Your task to perform on an android device: Clear all items from cart on costco. Search for "amazon basics triple a" on costco, select the first entry, and add it to the cart. Image 0: 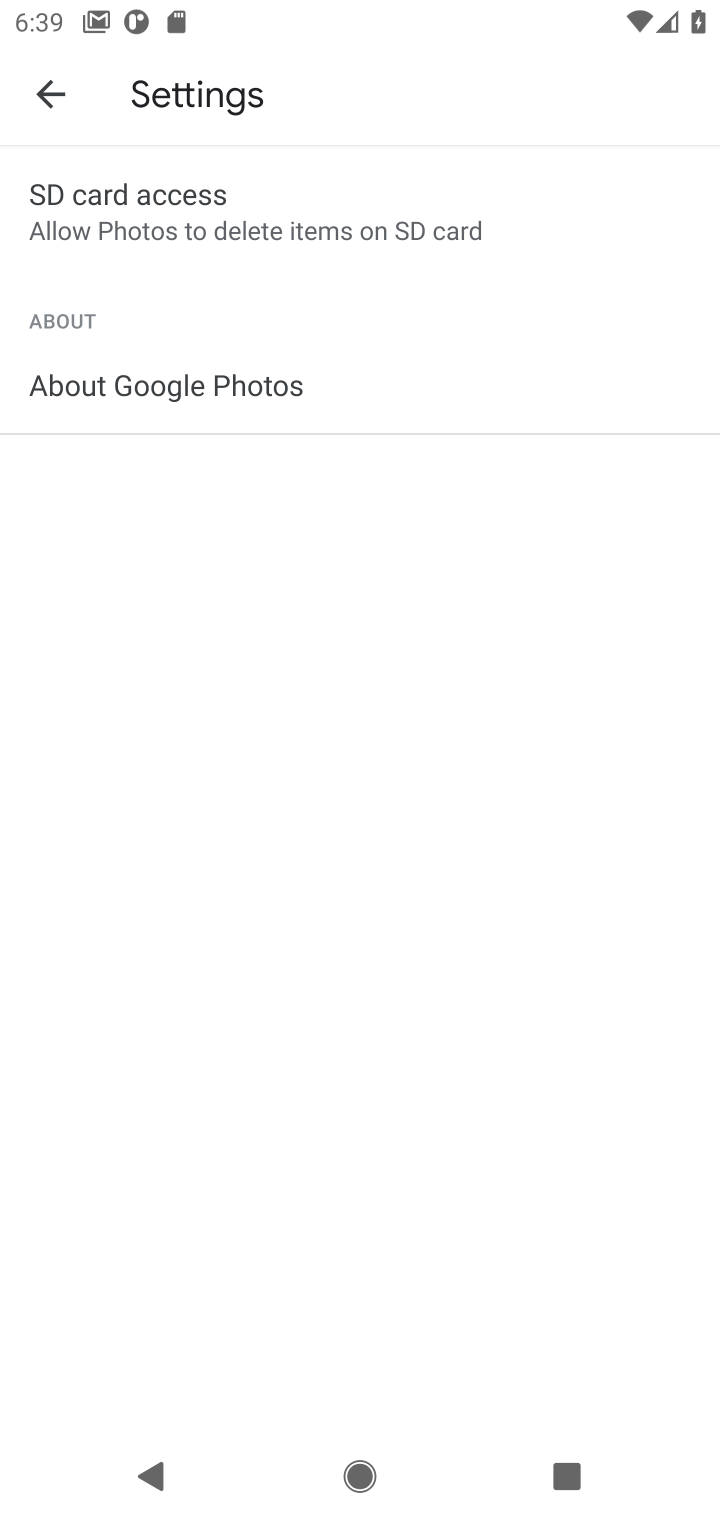
Step 0: press home button
Your task to perform on an android device: Clear all items from cart on costco. Search for "amazon basics triple a" on costco, select the first entry, and add it to the cart. Image 1: 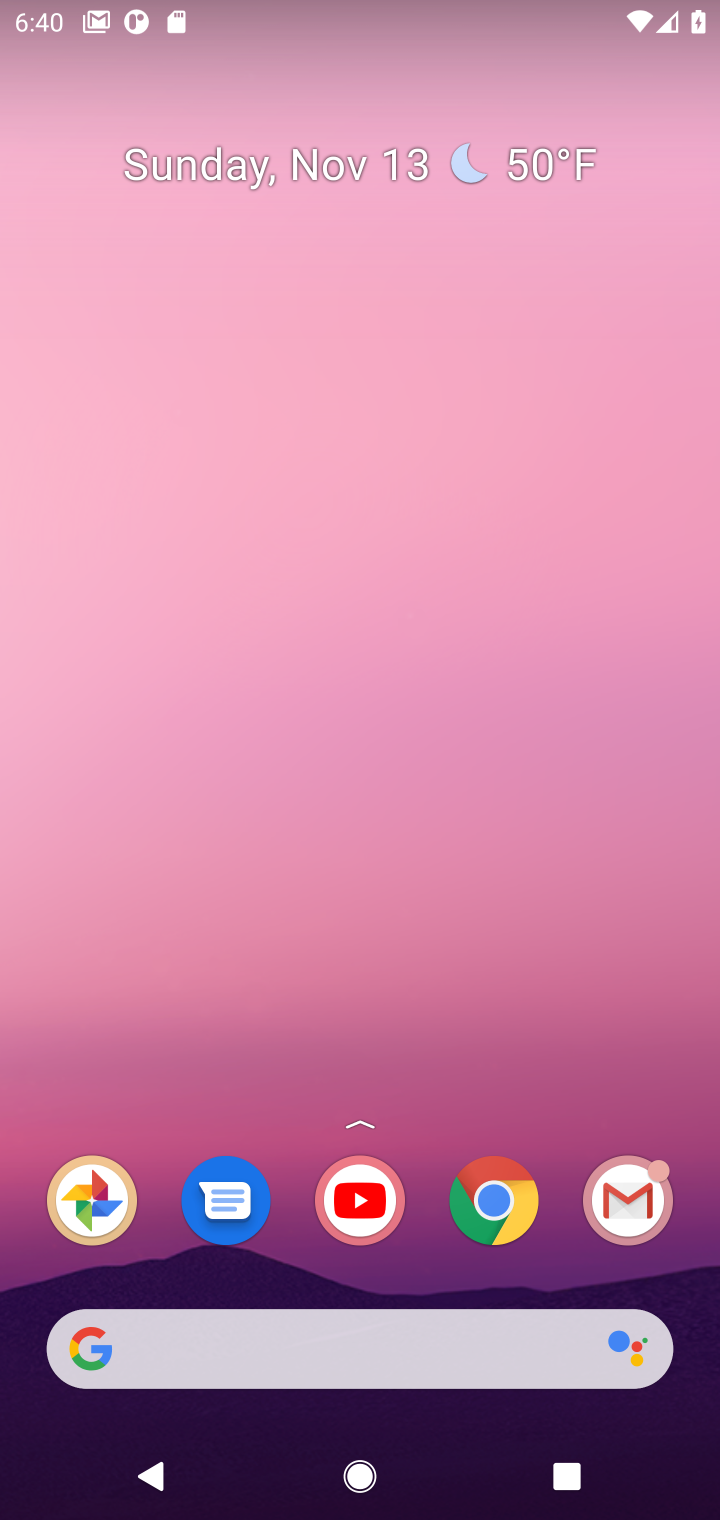
Step 1: click (463, 1220)
Your task to perform on an android device: Clear all items from cart on costco. Search for "amazon basics triple a" on costco, select the first entry, and add it to the cart. Image 2: 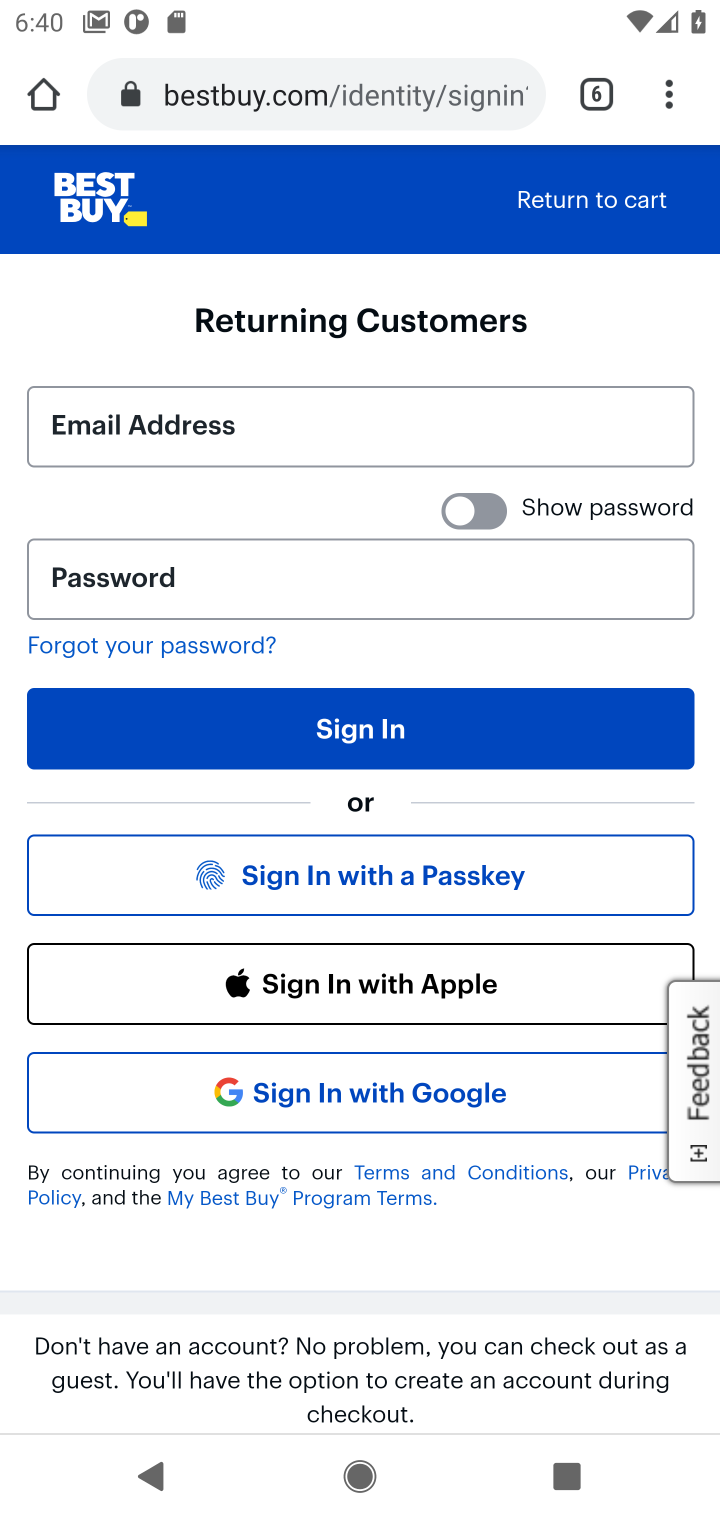
Step 2: click (587, 90)
Your task to perform on an android device: Clear all items from cart on costco. Search for "amazon basics triple a" on costco, select the first entry, and add it to the cart. Image 3: 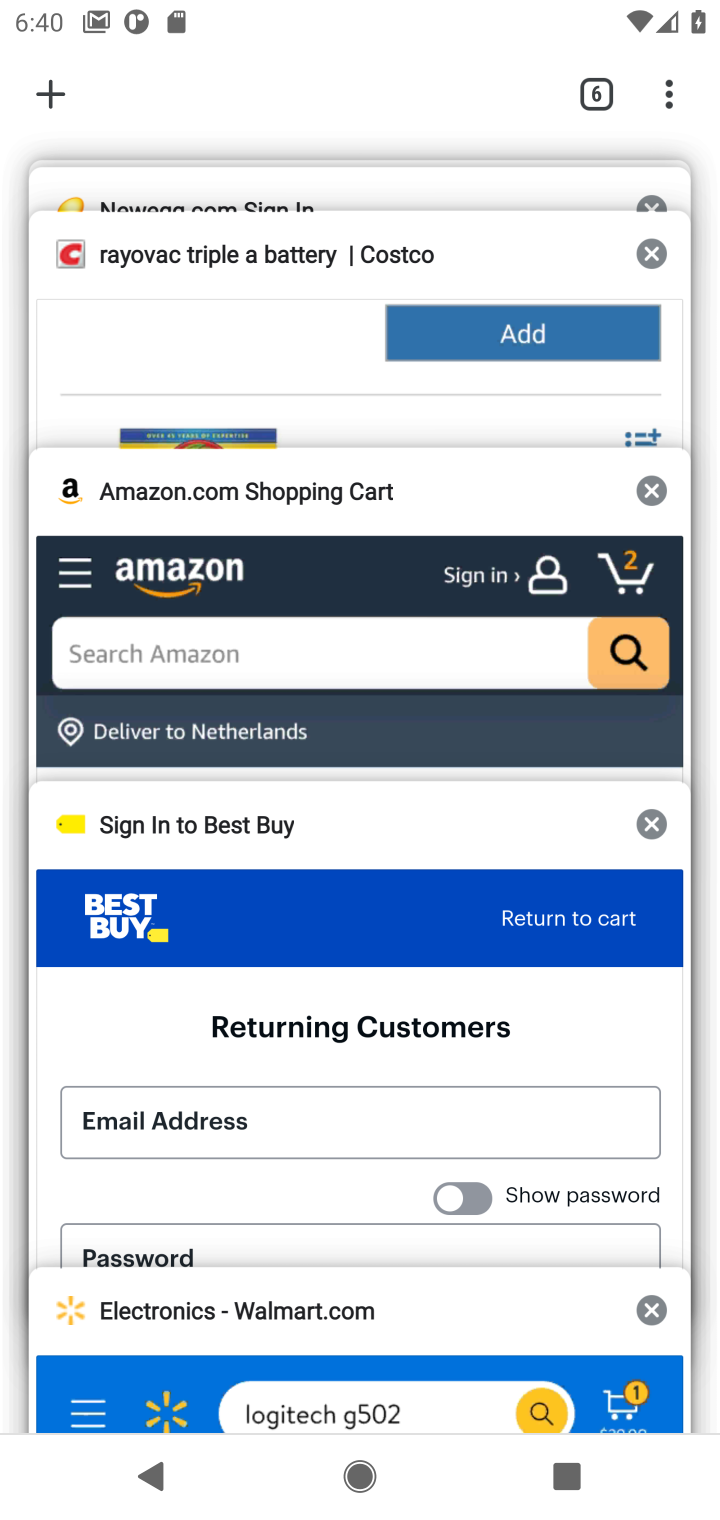
Step 3: click (301, 560)
Your task to perform on an android device: Clear all items from cart on costco. Search for "amazon basics triple a" on costco, select the first entry, and add it to the cart. Image 4: 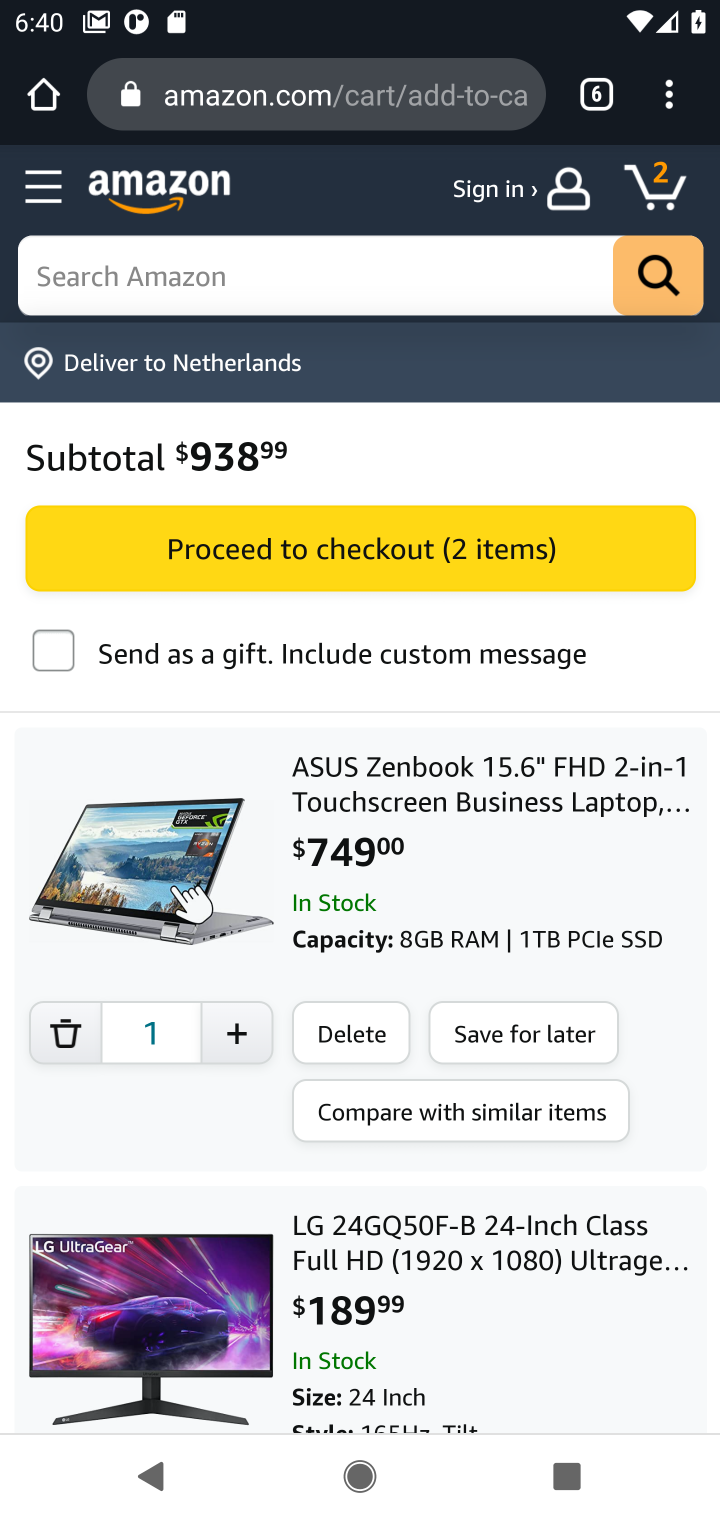
Step 4: click (602, 97)
Your task to perform on an android device: Clear all items from cart on costco. Search for "amazon basics triple a" on costco, select the first entry, and add it to the cart. Image 5: 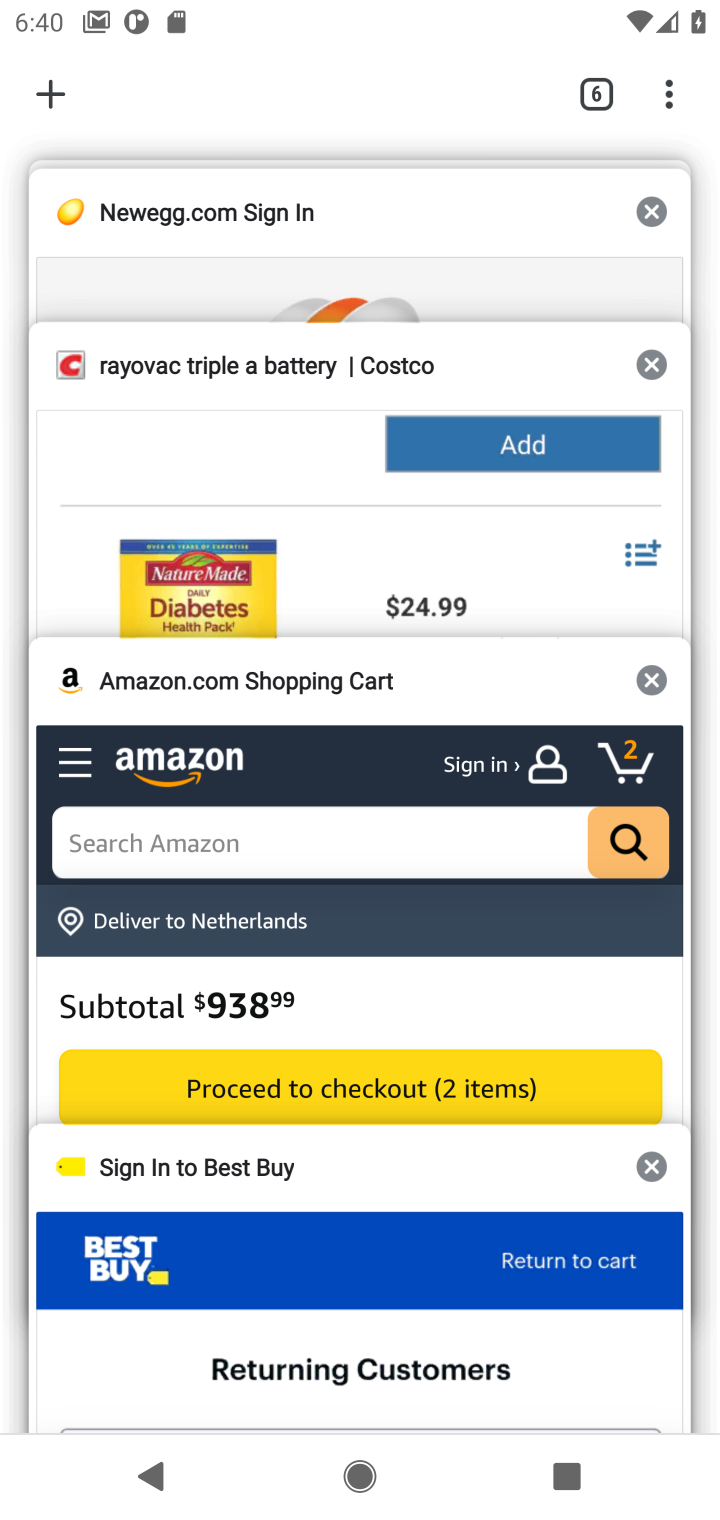
Step 5: click (296, 466)
Your task to perform on an android device: Clear all items from cart on costco. Search for "amazon basics triple a" on costco, select the first entry, and add it to the cart. Image 6: 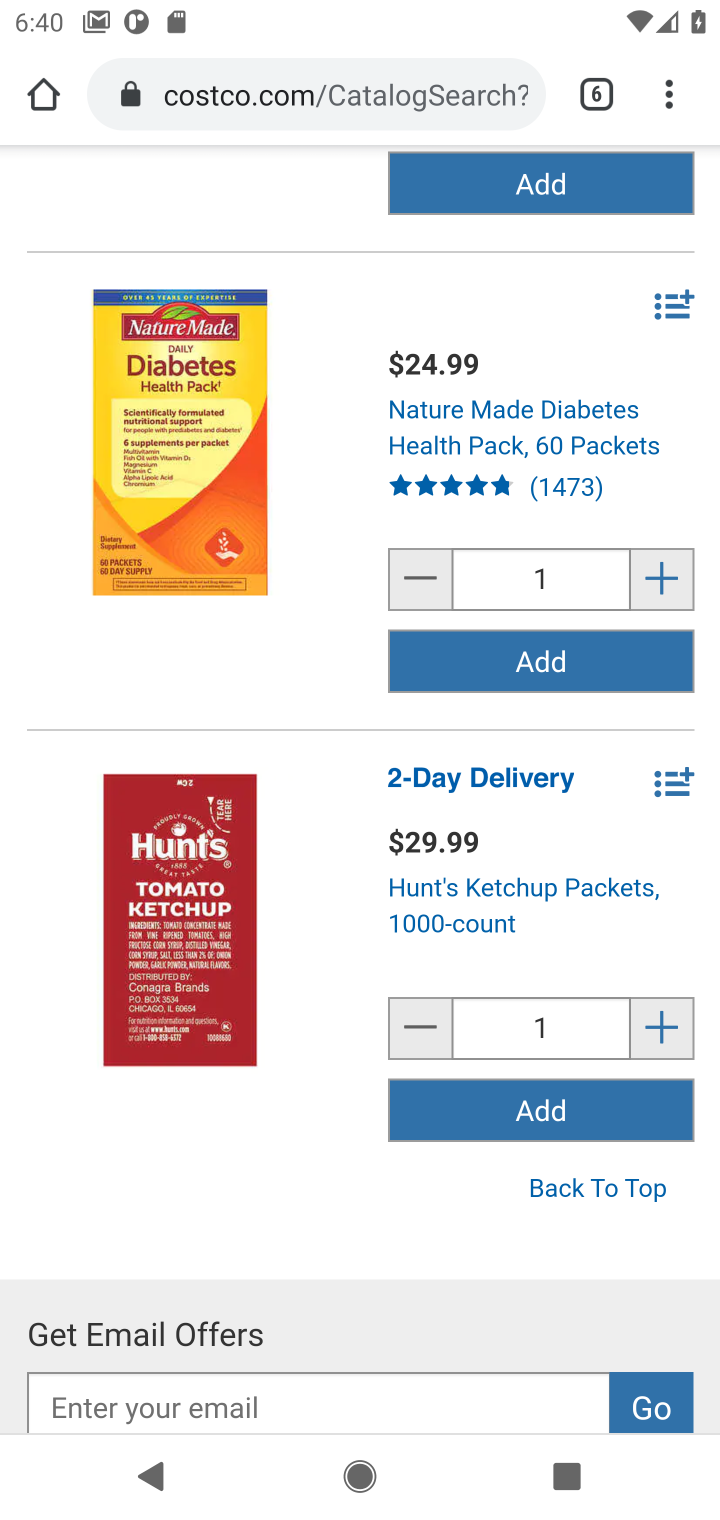
Step 6: drag from (344, 253) to (336, 903)
Your task to perform on an android device: Clear all items from cart on costco. Search for "amazon basics triple a" on costco, select the first entry, and add it to the cart. Image 7: 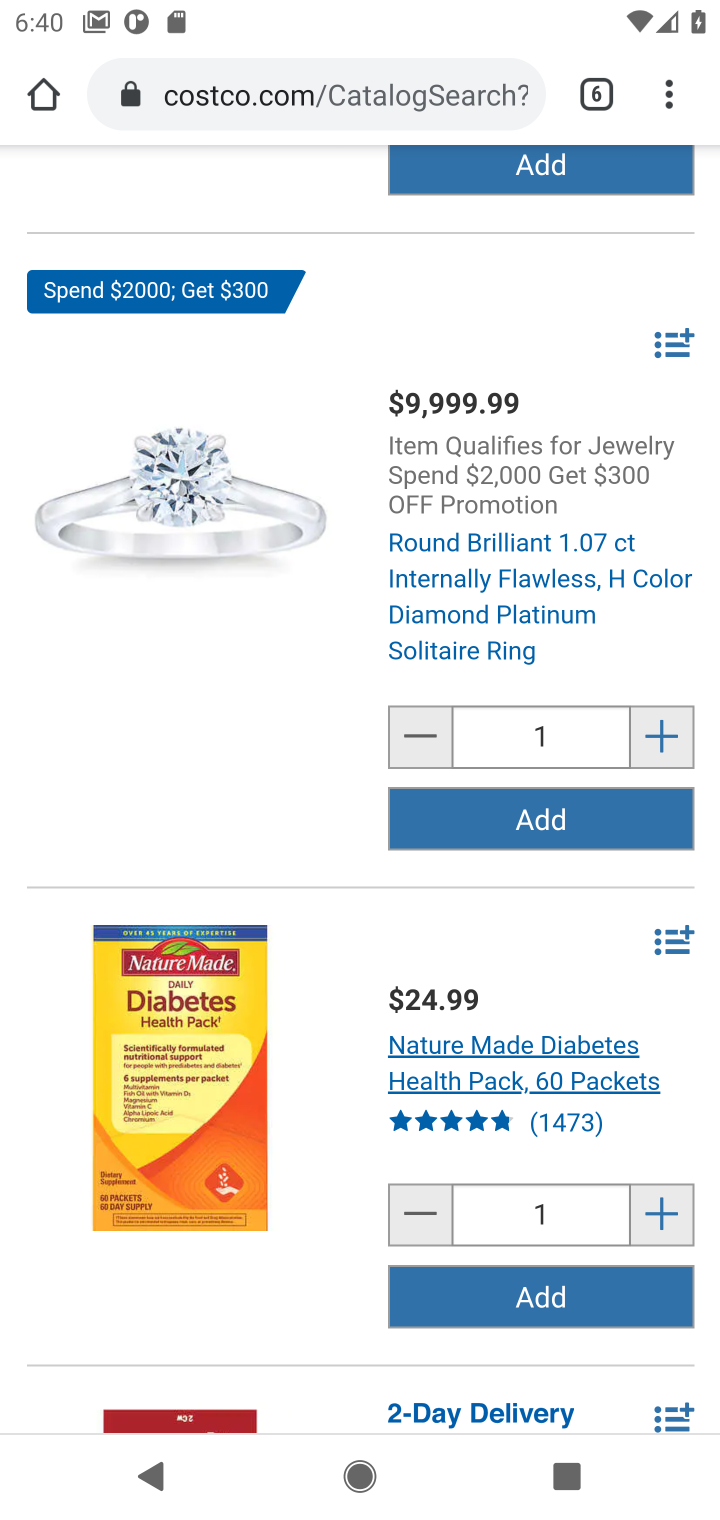
Step 7: drag from (300, 219) to (234, 854)
Your task to perform on an android device: Clear all items from cart on costco. Search for "amazon basics triple a" on costco, select the first entry, and add it to the cart. Image 8: 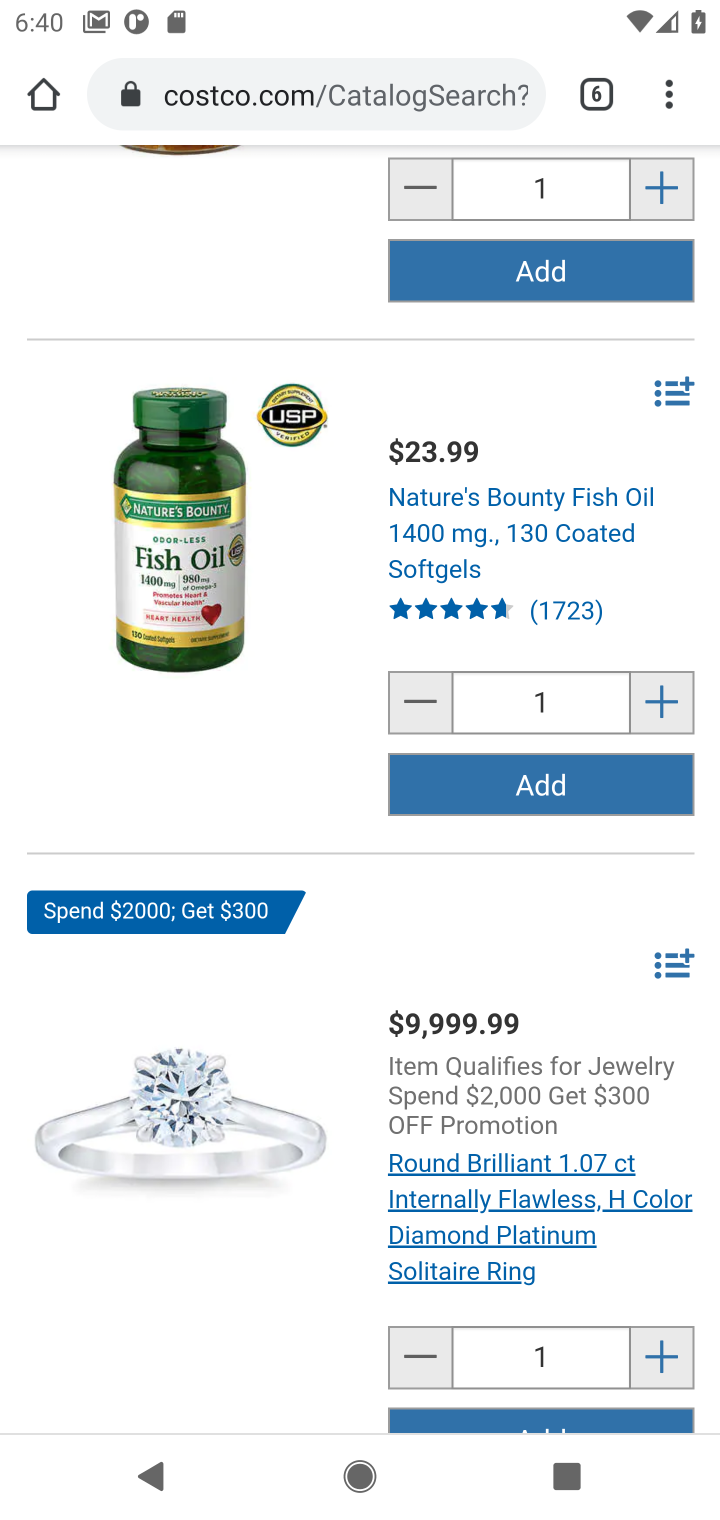
Step 8: drag from (270, 212) to (87, 1166)
Your task to perform on an android device: Clear all items from cart on costco. Search for "amazon basics triple a" on costco, select the first entry, and add it to the cart. Image 9: 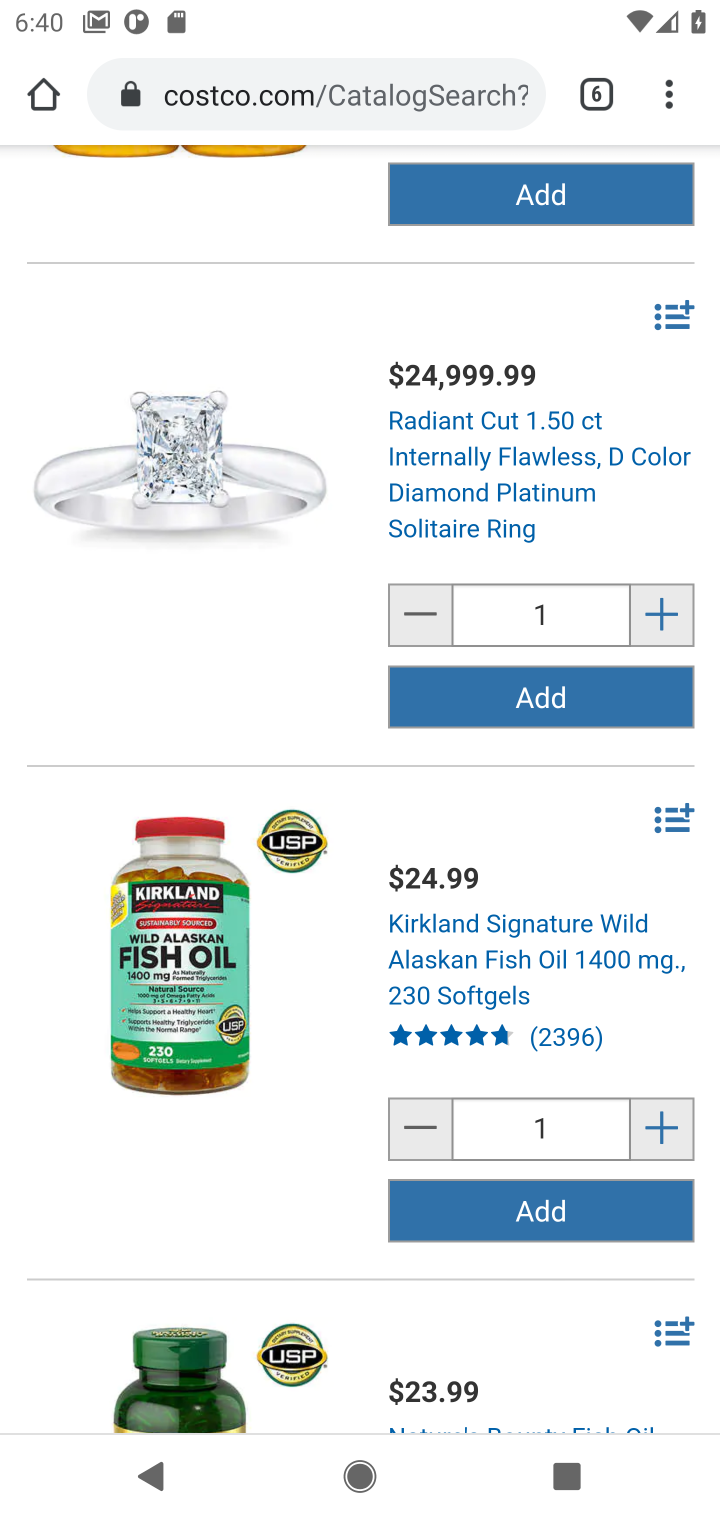
Step 9: drag from (320, 352) to (140, 1197)
Your task to perform on an android device: Clear all items from cart on costco. Search for "amazon basics triple a" on costco, select the first entry, and add it to the cart. Image 10: 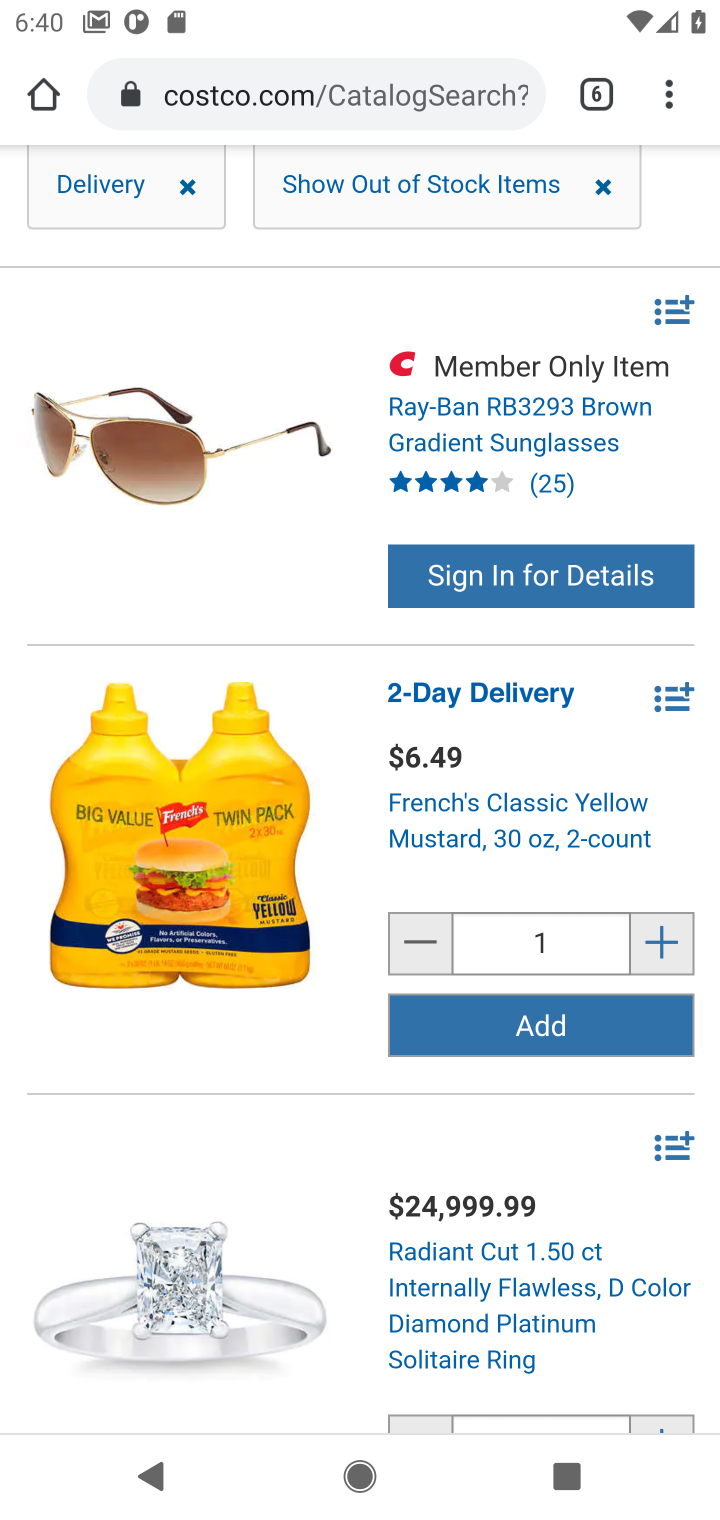
Step 10: drag from (331, 287) to (236, 1370)
Your task to perform on an android device: Clear all items from cart on costco. Search for "amazon basics triple a" on costco, select the first entry, and add it to the cart. Image 11: 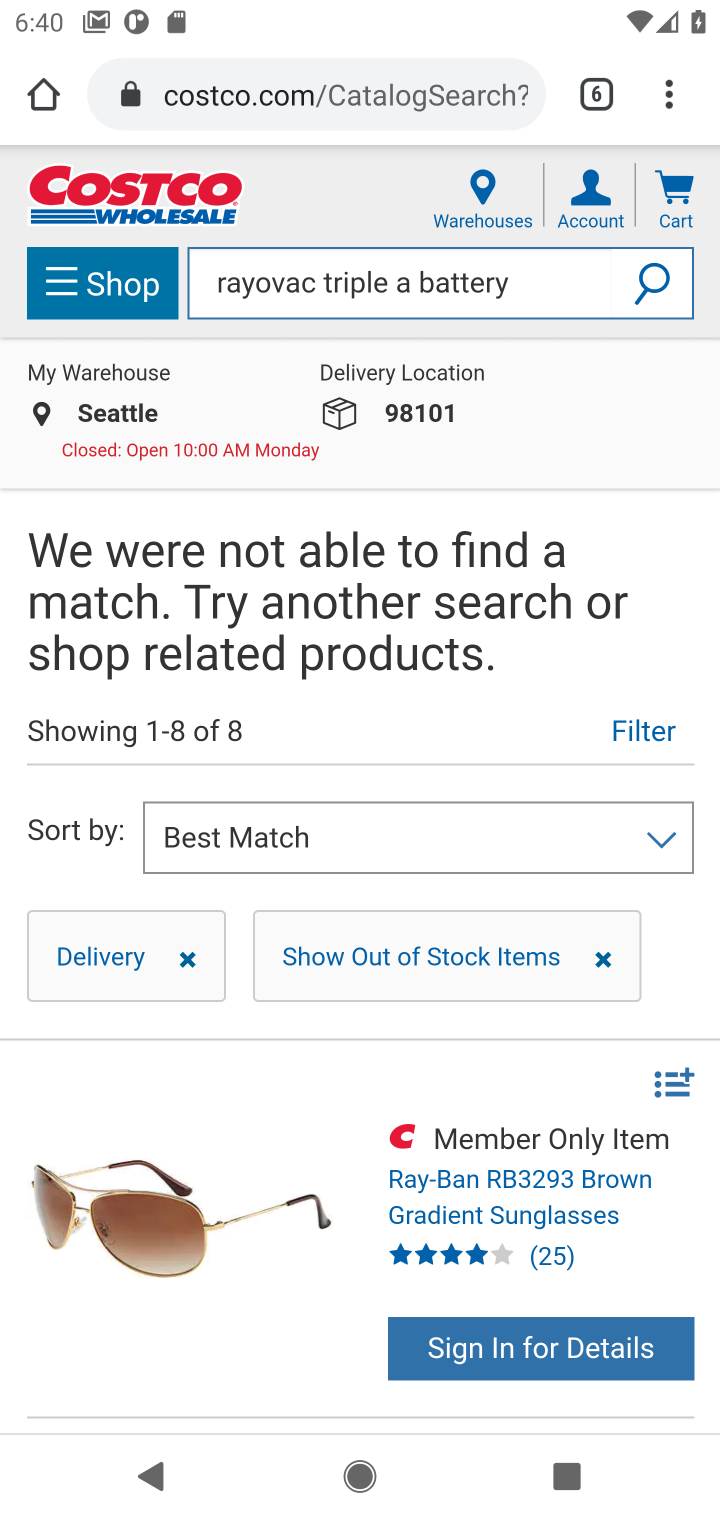
Step 11: click (426, 299)
Your task to perform on an android device: Clear all items from cart on costco. Search for "amazon basics triple a" on costco, select the first entry, and add it to the cart. Image 12: 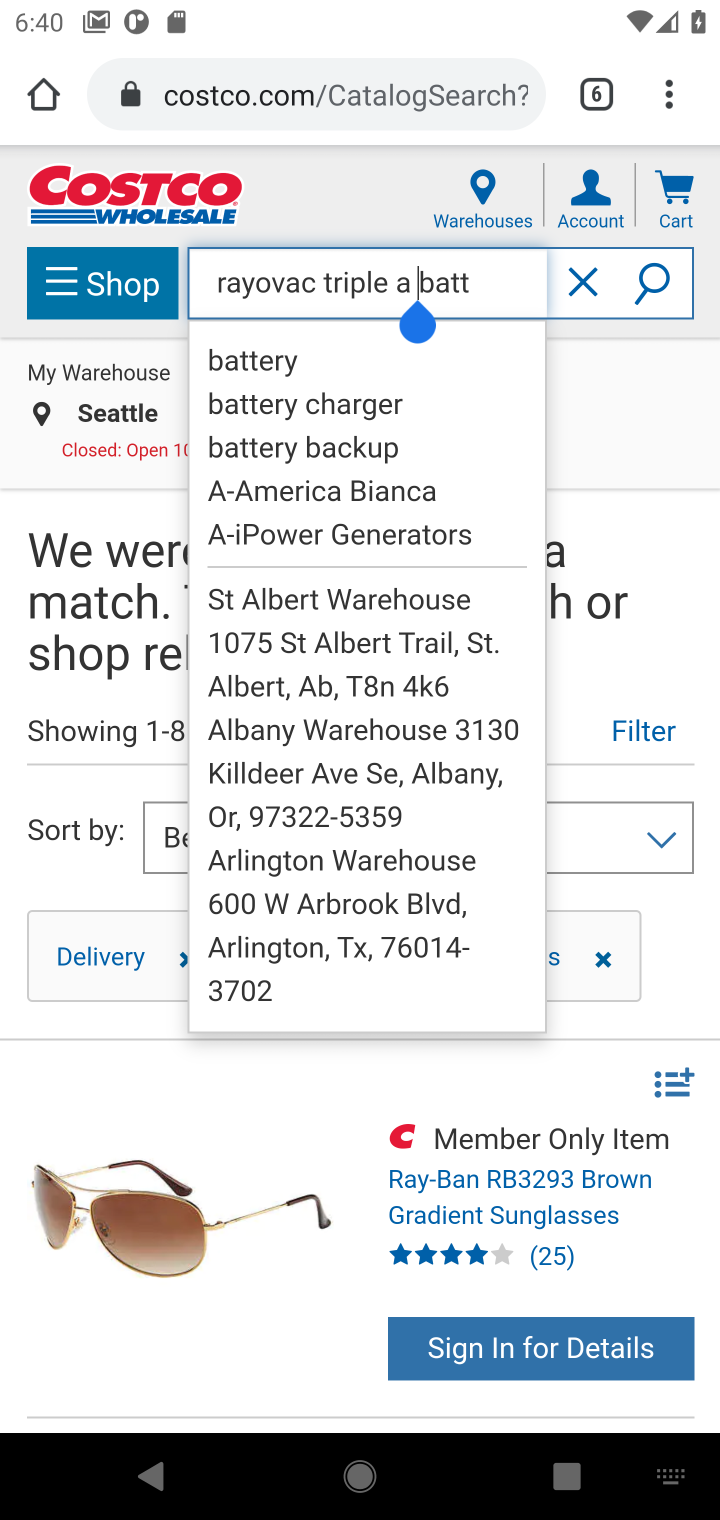
Step 12: click (591, 277)
Your task to perform on an android device: Clear all items from cart on costco. Search for "amazon basics triple a" on costco, select the first entry, and add it to the cart. Image 13: 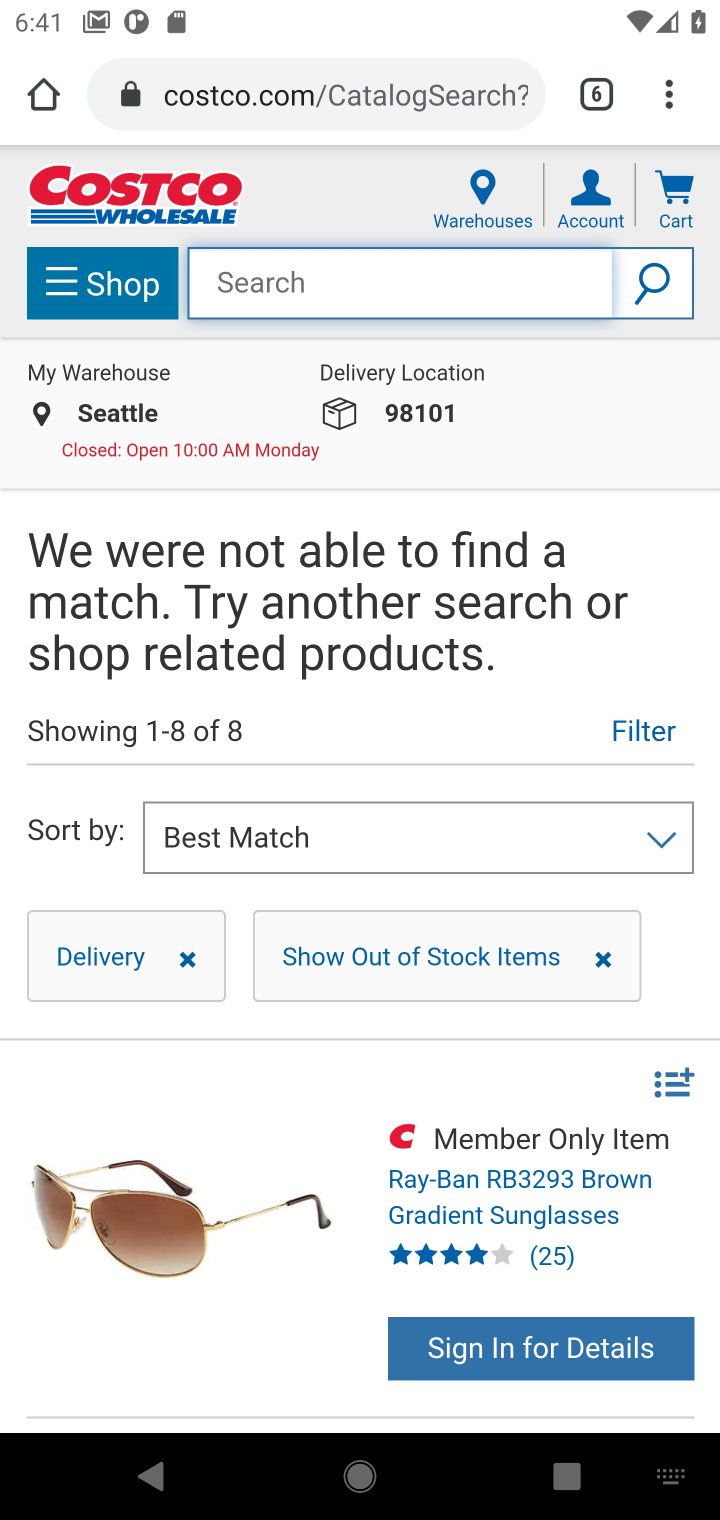
Step 13: type "amazon basics triple a battery"
Your task to perform on an android device: Clear all items from cart on costco. Search for "amazon basics triple a" on costco, select the first entry, and add it to the cart. Image 14: 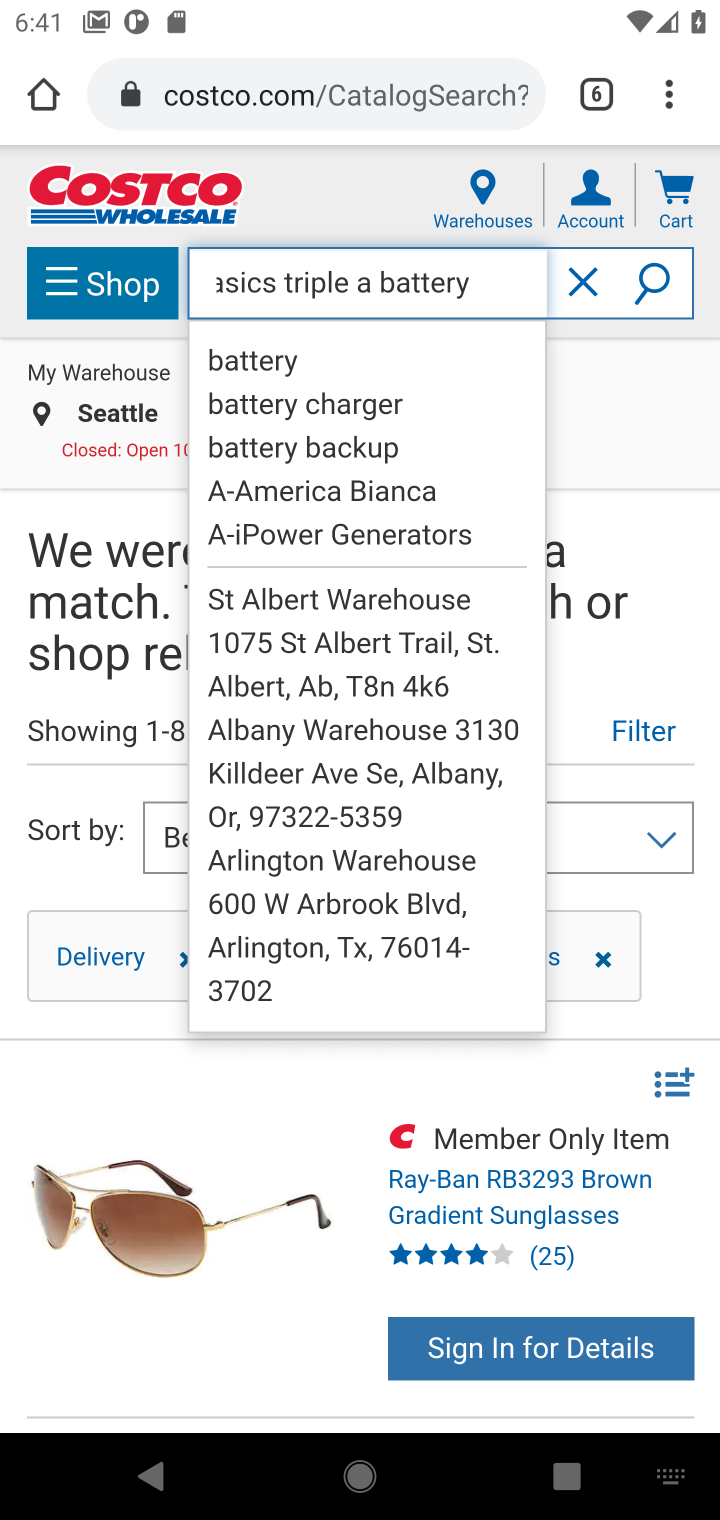
Step 14: click (657, 273)
Your task to perform on an android device: Clear all items from cart on costco. Search for "amazon basics triple a" on costco, select the first entry, and add it to the cart. Image 15: 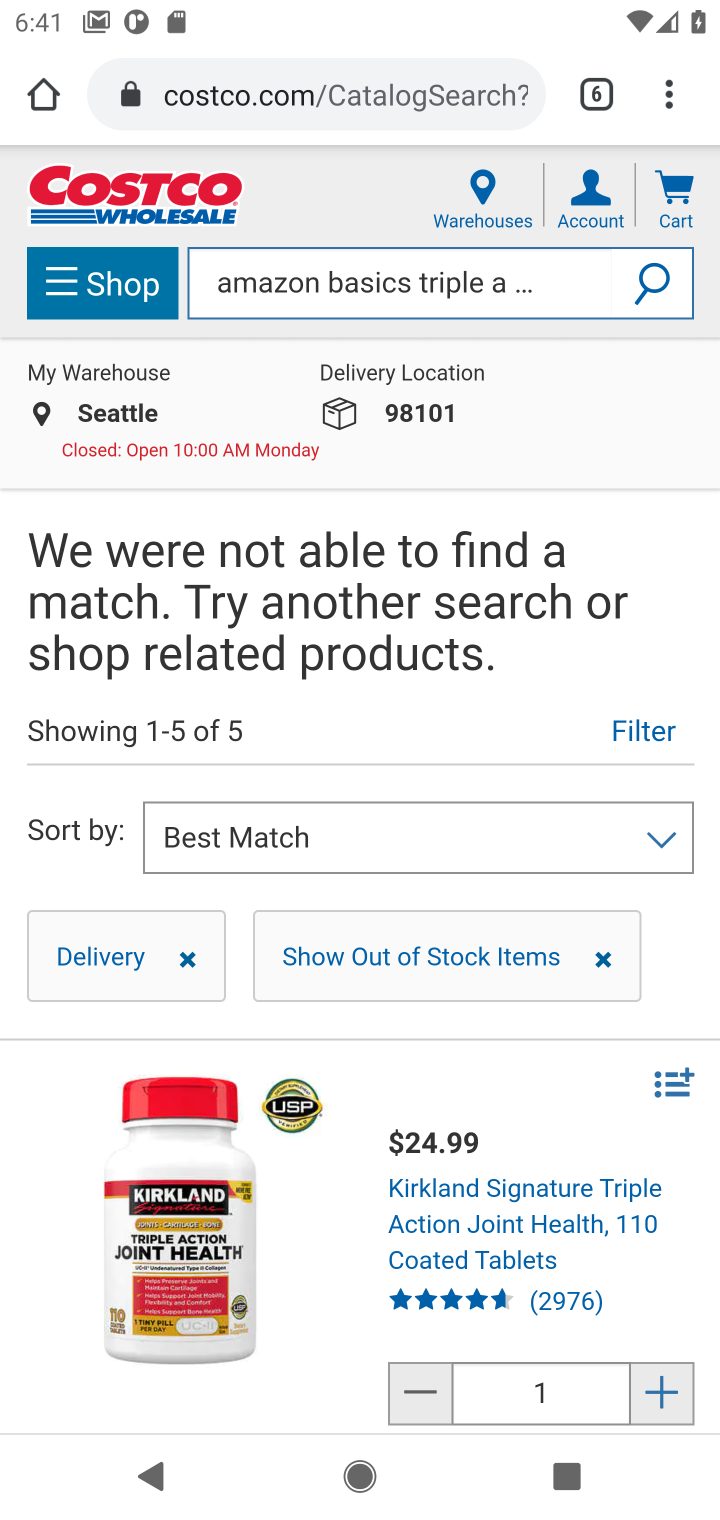
Step 15: task complete